Your task to perform on an android device: Go to Google maps Image 0: 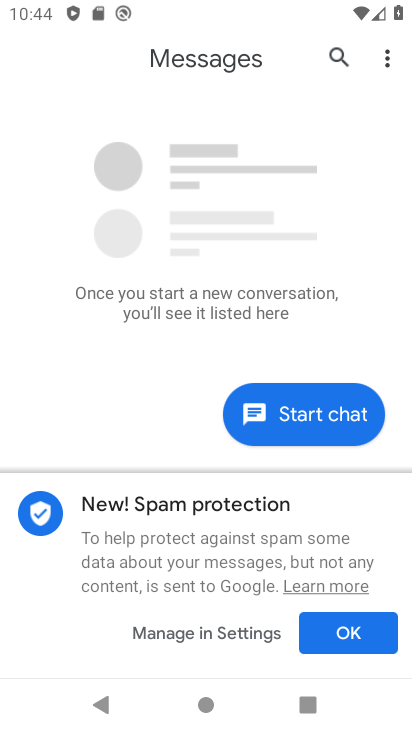
Step 0: drag from (367, 623) to (397, 595)
Your task to perform on an android device: Go to Google maps Image 1: 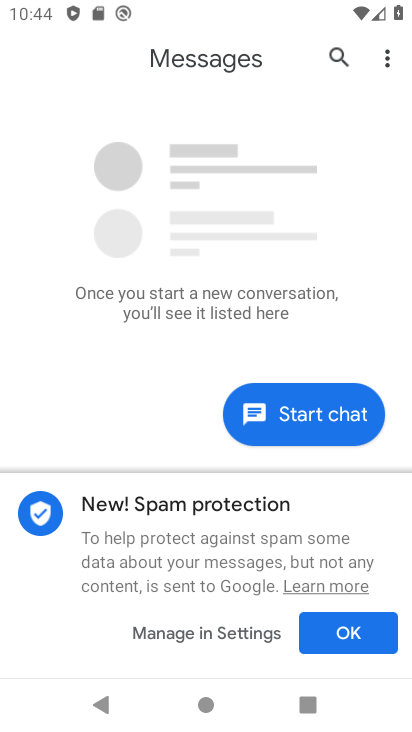
Step 1: press back button
Your task to perform on an android device: Go to Google maps Image 2: 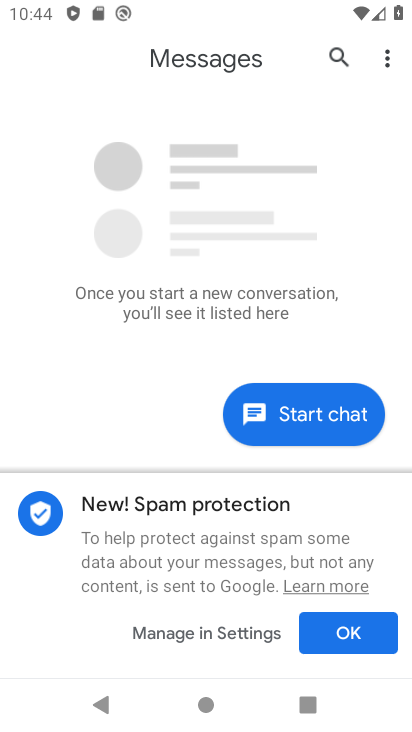
Step 2: drag from (397, 595) to (379, 448)
Your task to perform on an android device: Go to Google maps Image 3: 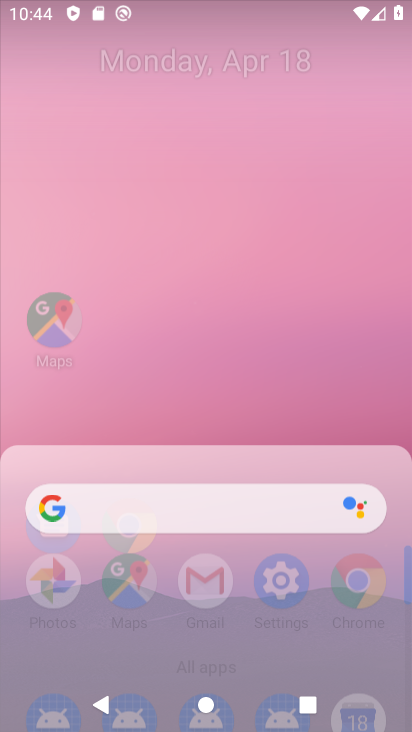
Step 3: click (60, 350)
Your task to perform on an android device: Go to Google maps Image 4: 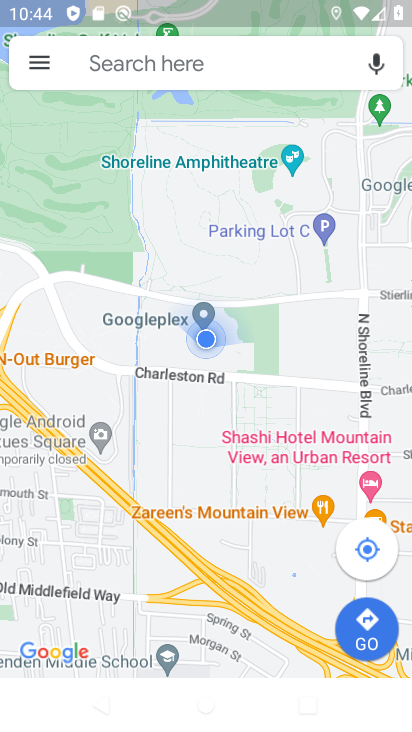
Step 4: task complete